Your task to perform on an android device: make emails show in primary in the gmail app Image 0: 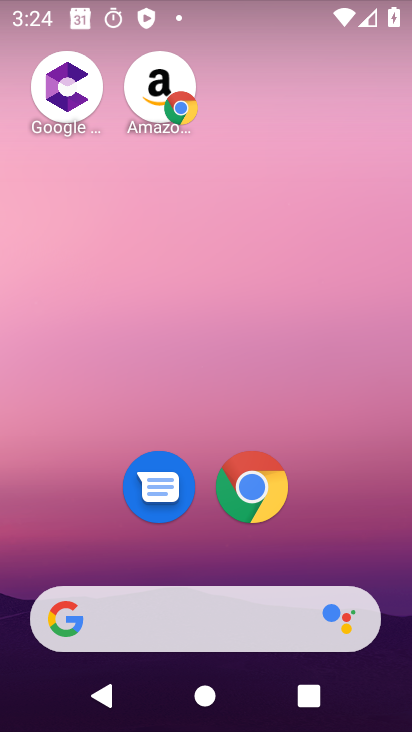
Step 0: drag from (279, 586) to (329, 16)
Your task to perform on an android device: make emails show in primary in the gmail app Image 1: 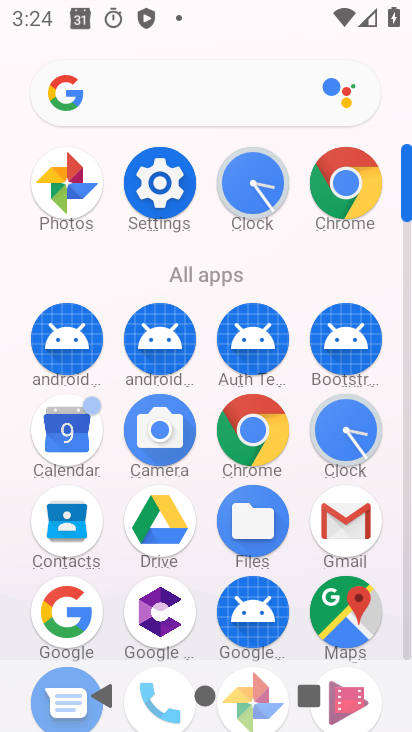
Step 1: click (345, 531)
Your task to perform on an android device: make emails show in primary in the gmail app Image 2: 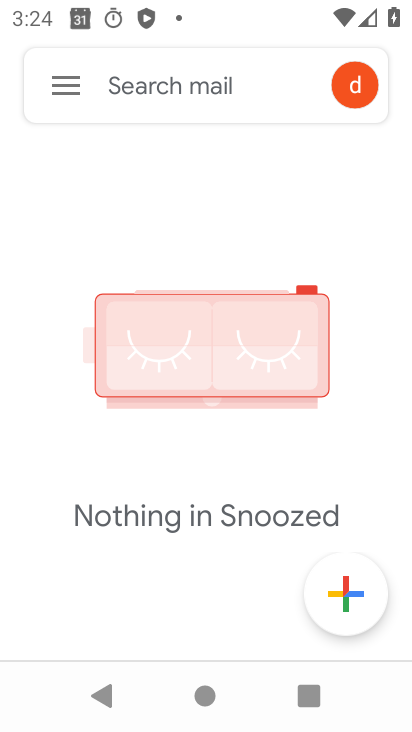
Step 2: click (54, 77)
Your task to perform on an android device: make emails show in primary in the gmail app Image 3: 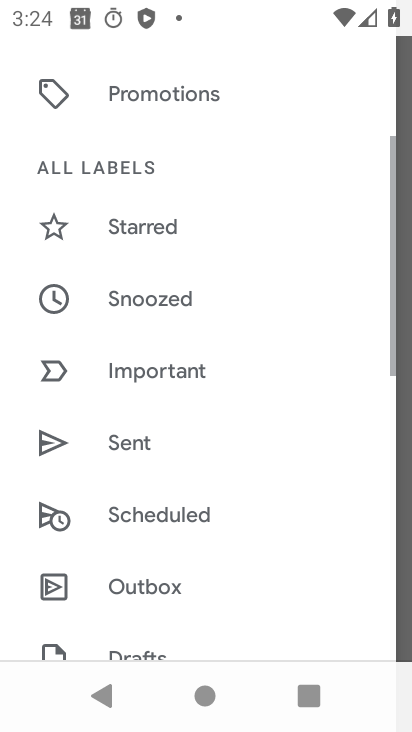
Step 3: drag from (180, 164) to (185, 673)
Your task to perform on an android device: make emails show in primary in the gmail app Image 4: 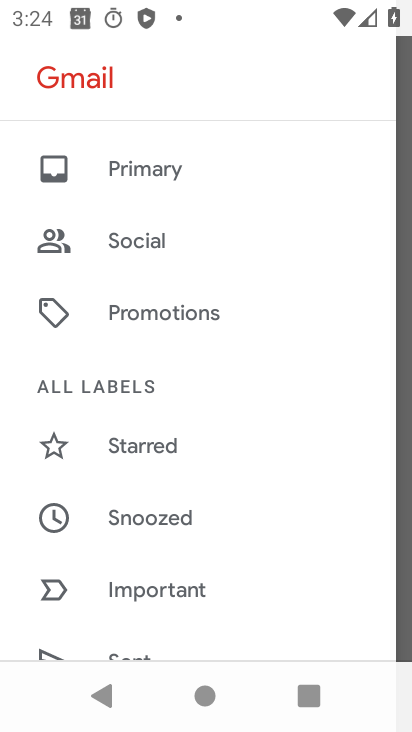
Step 4: click (166, 172)
Your task to perform on an android device: make emails show in primary in the gmail app Image 5: 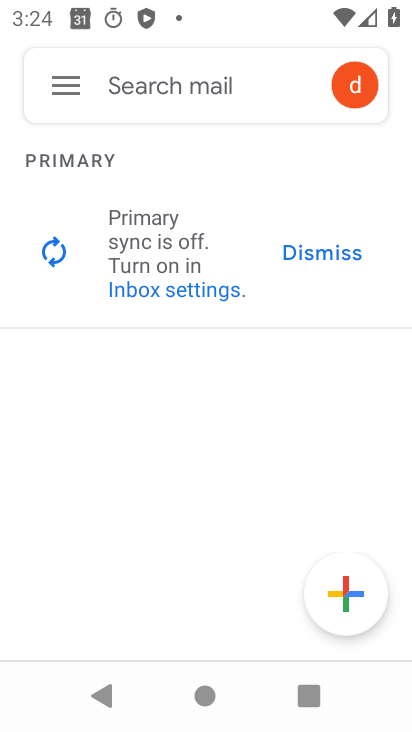
Step 5: task complete